Your task to perform on an android device: turn off priority inbox in the gmail app Image 0: 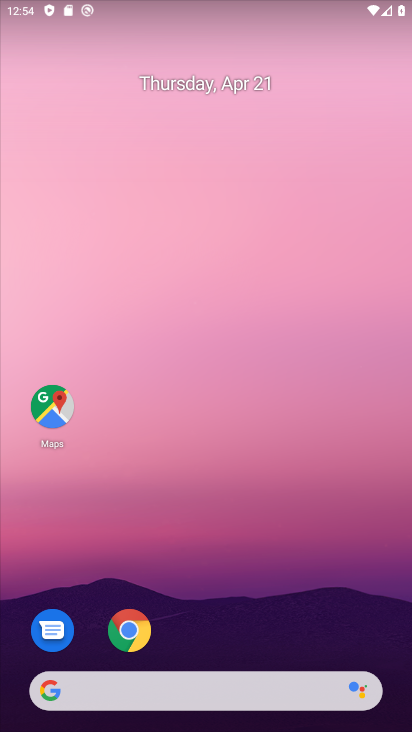
Step 0: drag from (320, 606) to (254, 96)
Your task to perform on an android device: turn off priority inbox in the gmail app Image 1: 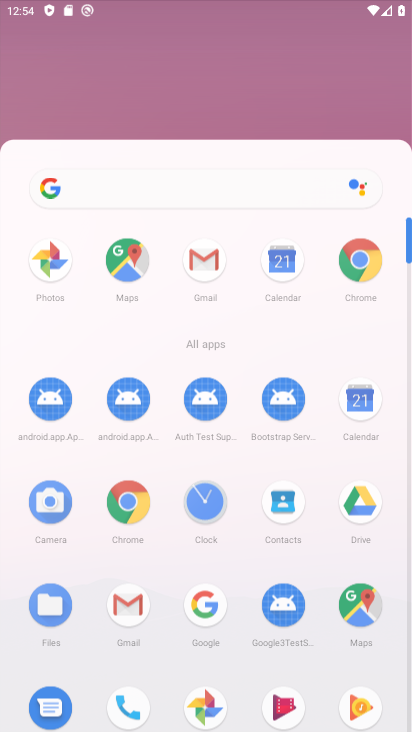
Step 1: drag from (252, 83) to (240, 1)
Your task to perform on an android device: turn off priority inbox in the gmail app Image 2: 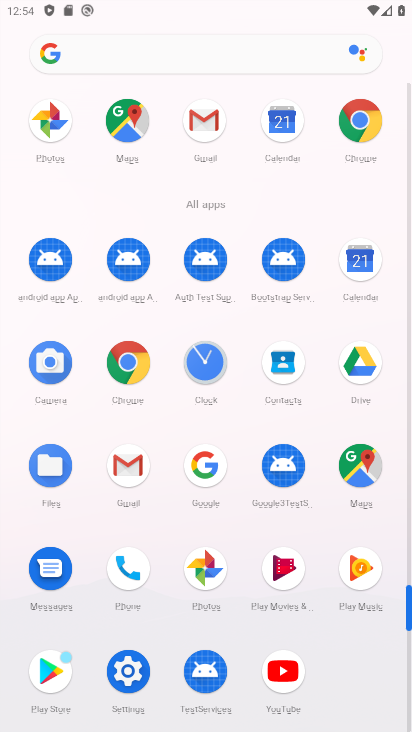
Step 2: click (199, 118)
Your task to perform on an android device: turn off priority inbox in the gmail app Image 3: 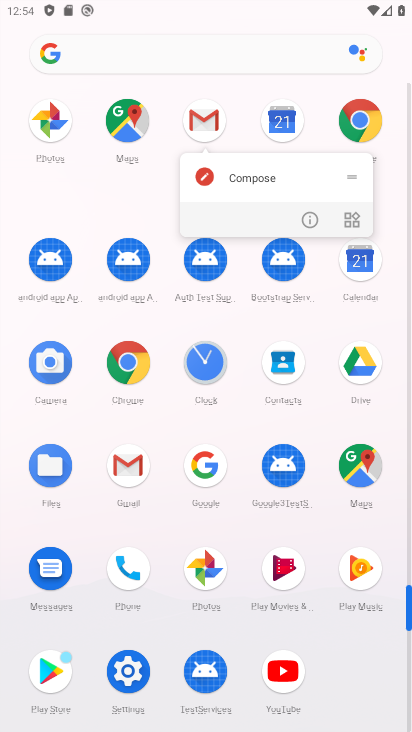
Step 3: click (316, 219)
Your task to perform on an android device: turn off priority inbox in the gmail app Image 4: 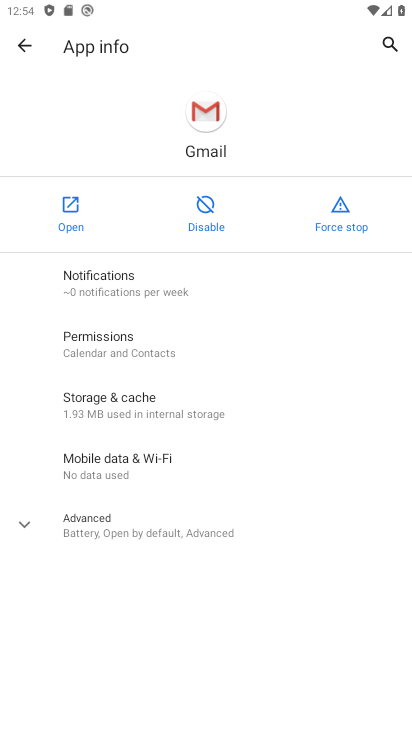
Step 4: click (22, 52)
Your task to perform on an android device: turn off priority inbox in the gmail app Image 5: 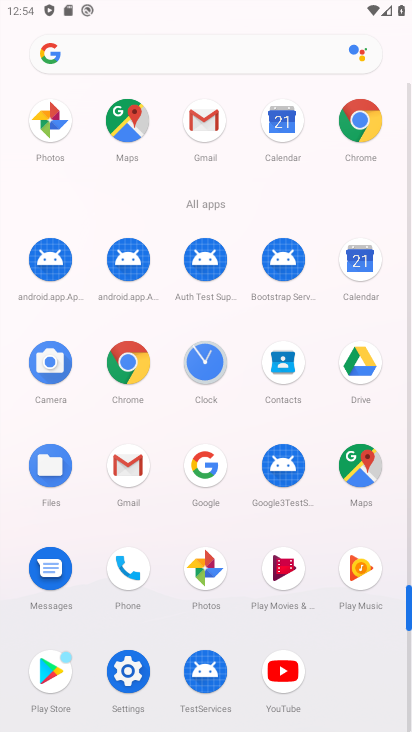
Step 5: click (202, 137)
Your task to perform on an android device: turn off priority inbox in the gmail app Image 6: 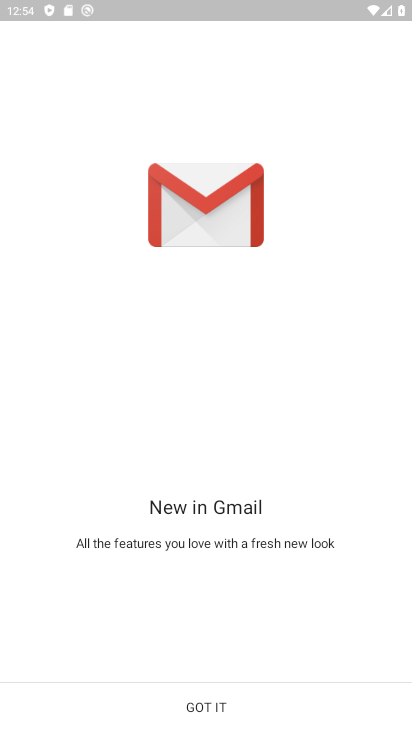
Step 6: click (220, 694)
Your task to perform on an android device: turn off priority inbox in the gmail app Image 7: 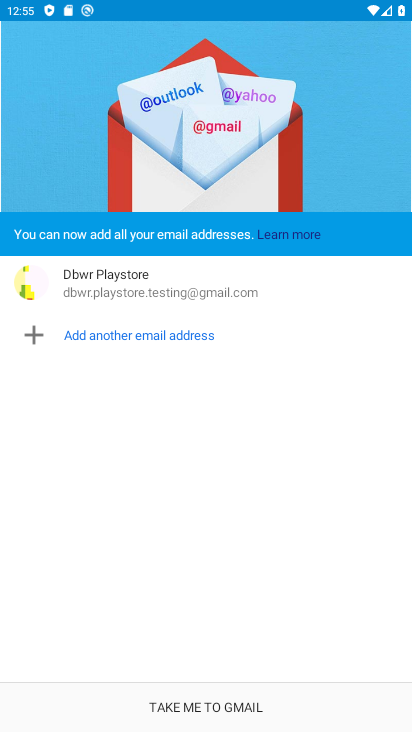
Step 7: click (220, 694)
Your task to perform on an android device: turn off priority inbox in the gmail app Image 8: 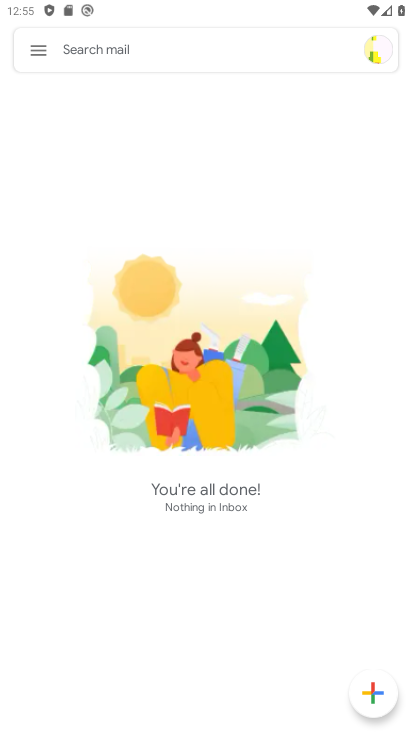
Step 8: click (34, 60)
Your task to perform on an android device: turn off priority inbox in the gmail app Image 9: 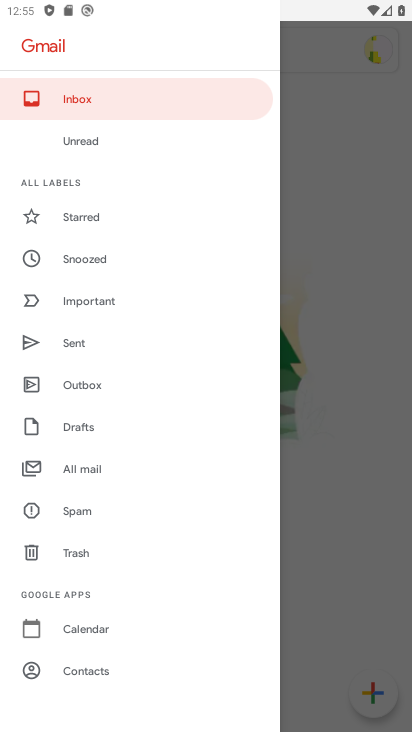
Step 9: drag from (130, 589) to (125, 208)
Your task to perform on an android device: turn off priority inbox in the gmail app Image 10: 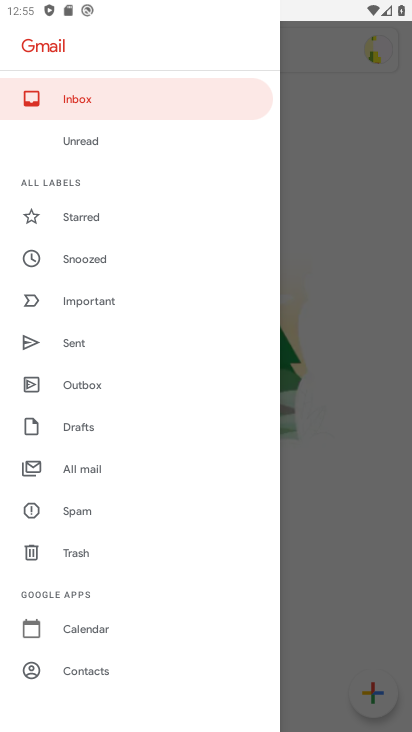
Step 10: drag from (83, 612) to (109, 376)
Your task to perform on an android device: turn off priority inbox in the gmail app Image 11: 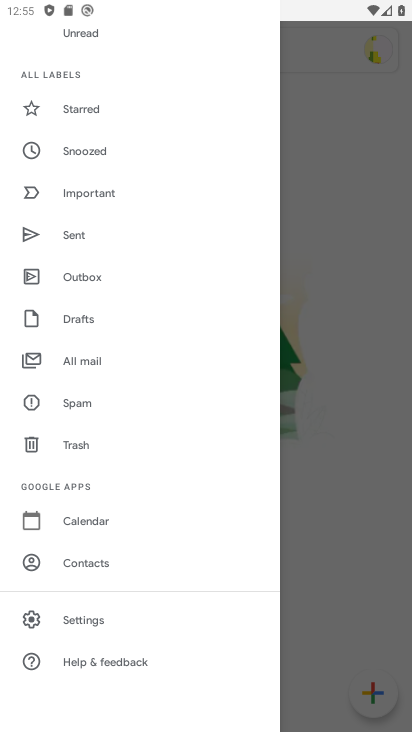
Step 11: click (87, 623)
Your task to perform on an android device: turn off priority inbox in the gmail app Image 12: 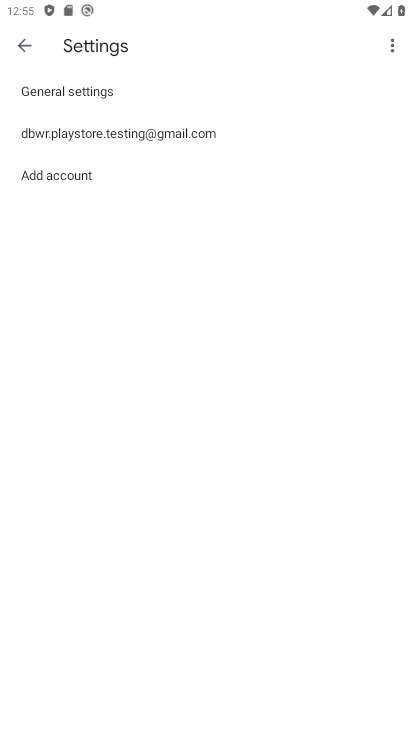
Step 12: click (64, 119)
Your task to perform on an android device: turn off priority inbox in the gmail app Image 13: 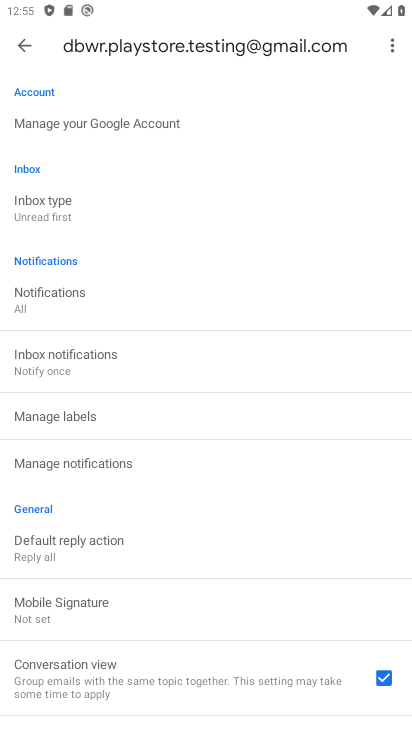
Step 13: click (69, 197)
Your task to perform on an android device: turn off priority inbox in the gmail app Image 14: 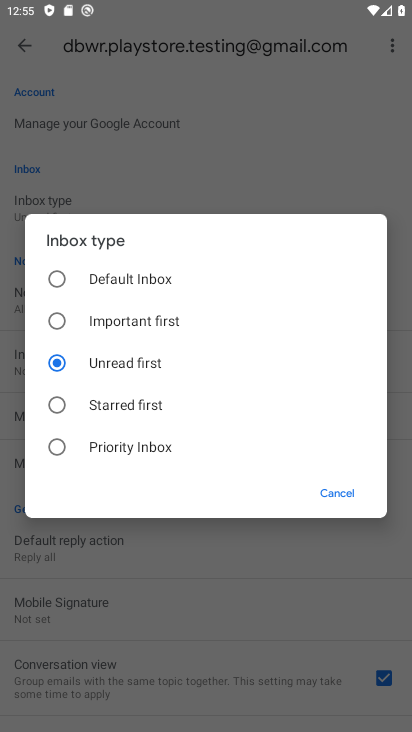
Step 14: click (349, 170)
Your task to perform on an android device: turn off priority inbox in the gmail app Image 15: 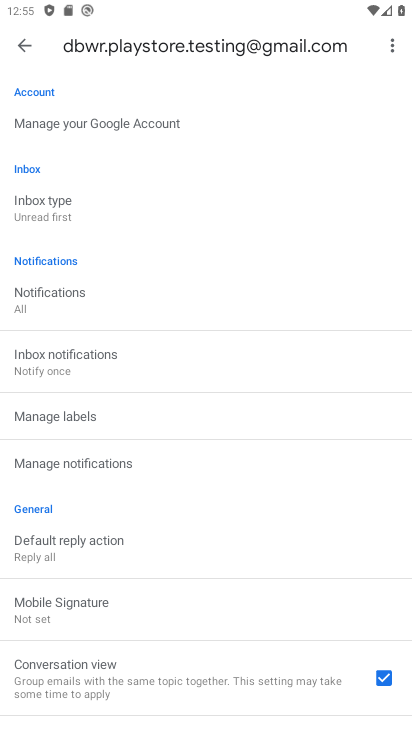
Step 15: task complete